Your task to perform on an android device: Open settings on Google Maps Image 0: 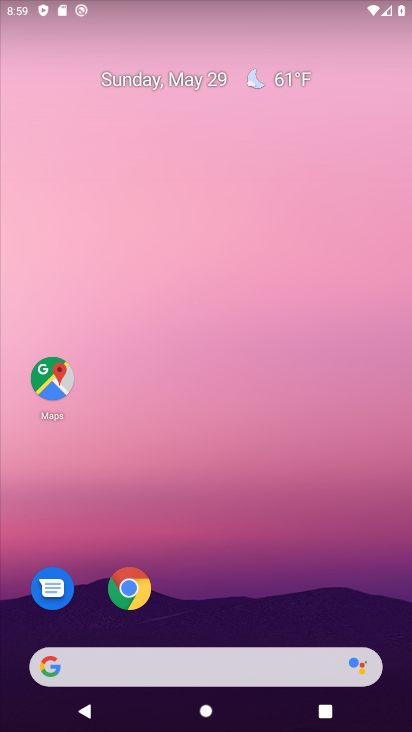
Step 0: click (52, 382)
Your task to perform on an android device: Open settings on Google Maps Image 1: 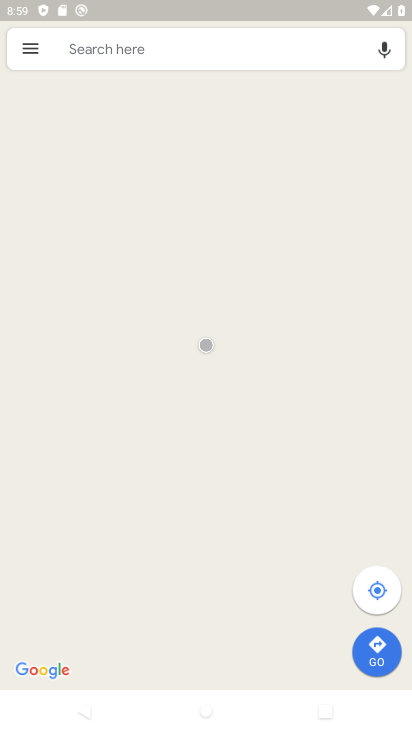
Step 1: click (39, 48)
Your task to perform on an android device: Open settings on Google Maps Image 2: 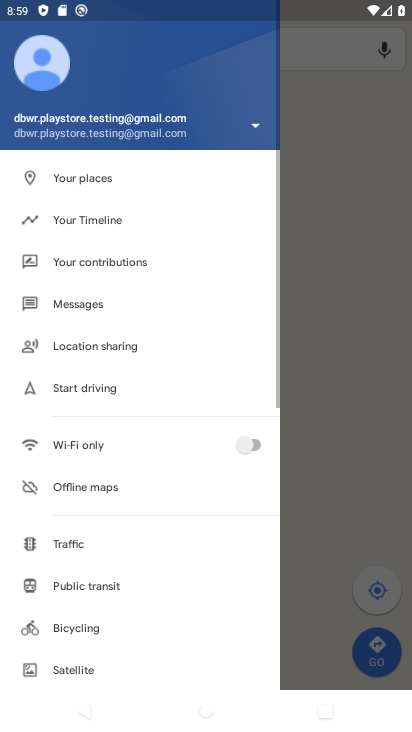
Step 2: drag from (174, 571) to (158, 80)
Your task to perform on an android device: Open settings on Google Maps Image 3: 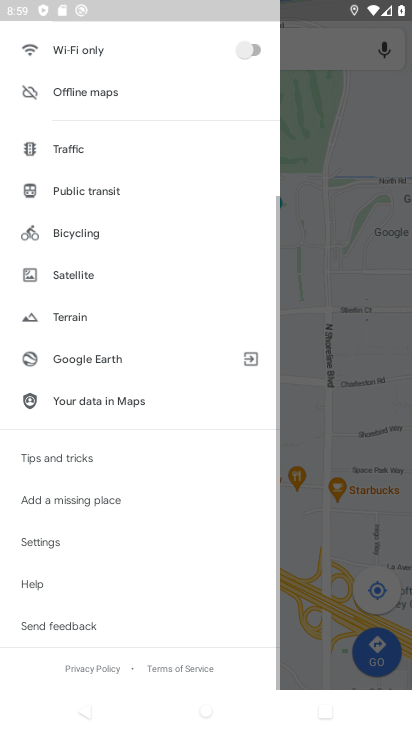
Step 3: drag from (78, 614) to (119, 301)
Your task to perform on an android device: Open settings on Google Maps Image 4: 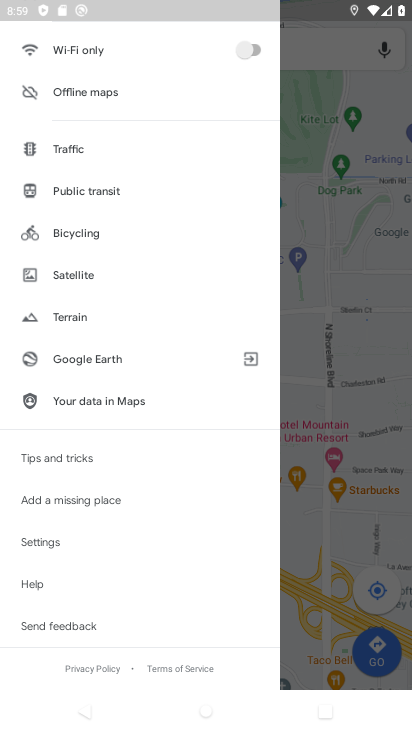
Step 4: click (55, 547)
Your task to perform on an android device: Open settings on Google Maps Image 5: 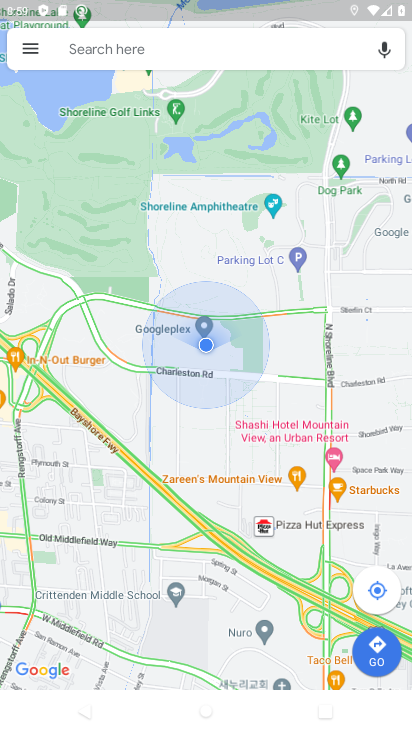
Step 5: click (35, 63)
Your task to perform on an android device: Open settings on Google Maps Image 6: 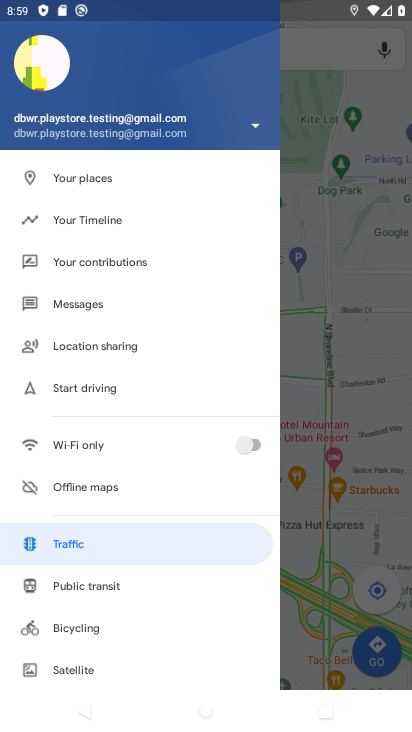
Step 6: drag from (182, 614) to (194, 173)
Your task to perform on an android device: Open settings on Google Maps Image 7: 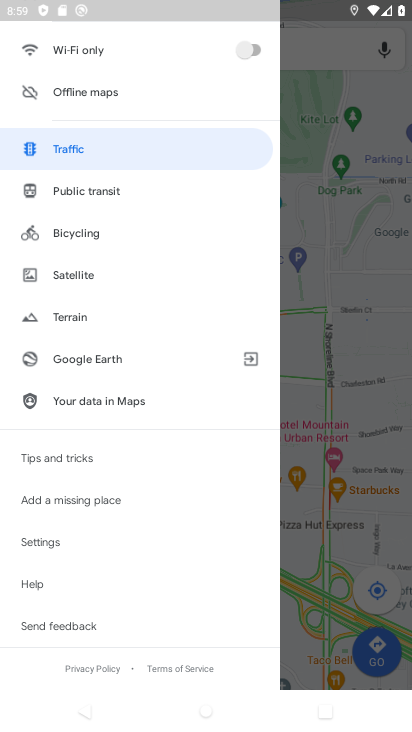
Step 7: click (63, 548)
Your task to perform on an android device: Open settings on Google Maps Image 8: 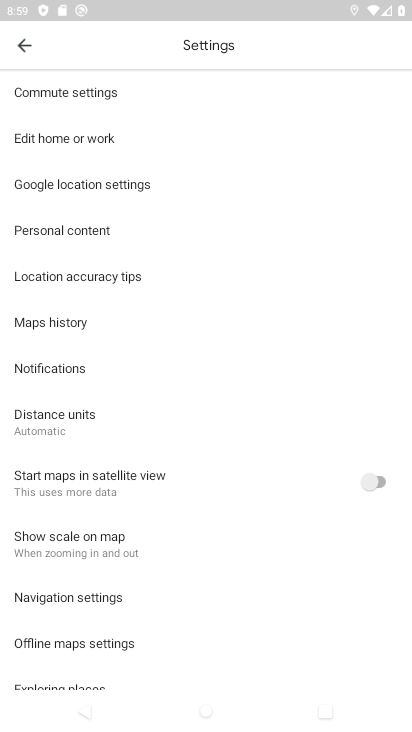
Step 8: task complete